Your task to perform on an android device: uninstall "Paramount+ | Peak Streaming" Image 0: 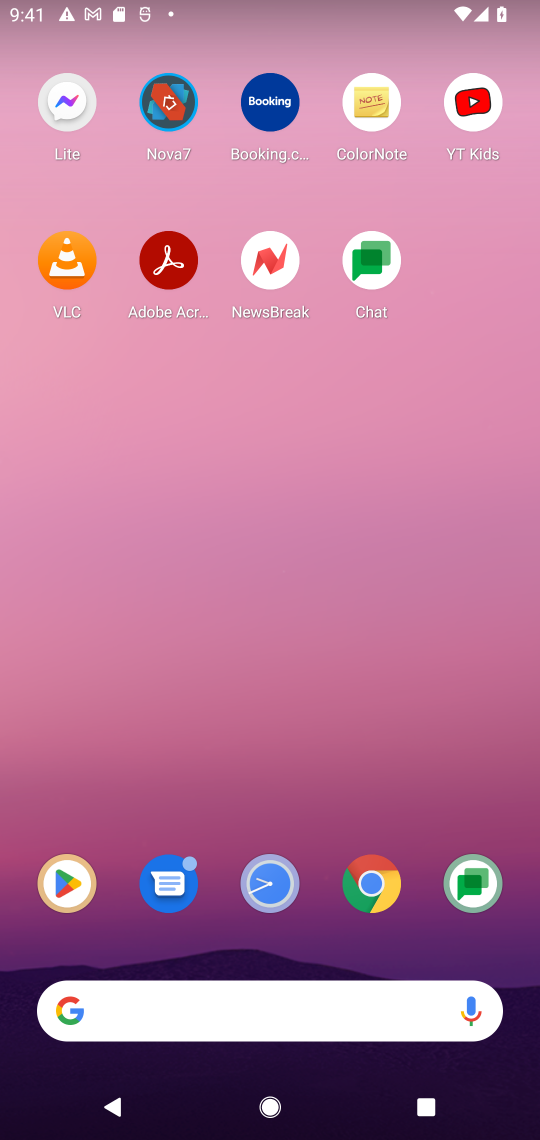
Step 0: click (58, 886)
Your task to perform on an android device: uninstall "Paramount+ | Peak Streaming" Image 1: 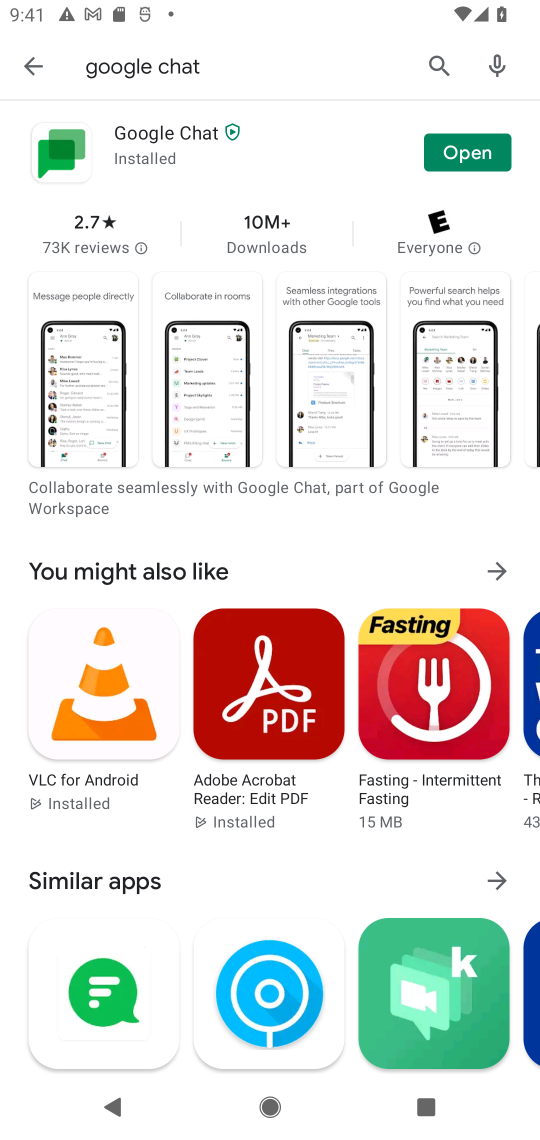
Step 1: click (186, 68)
Your task to perform on an android device: uninstall "Paramount+ | Peak Streaming" Image 2: 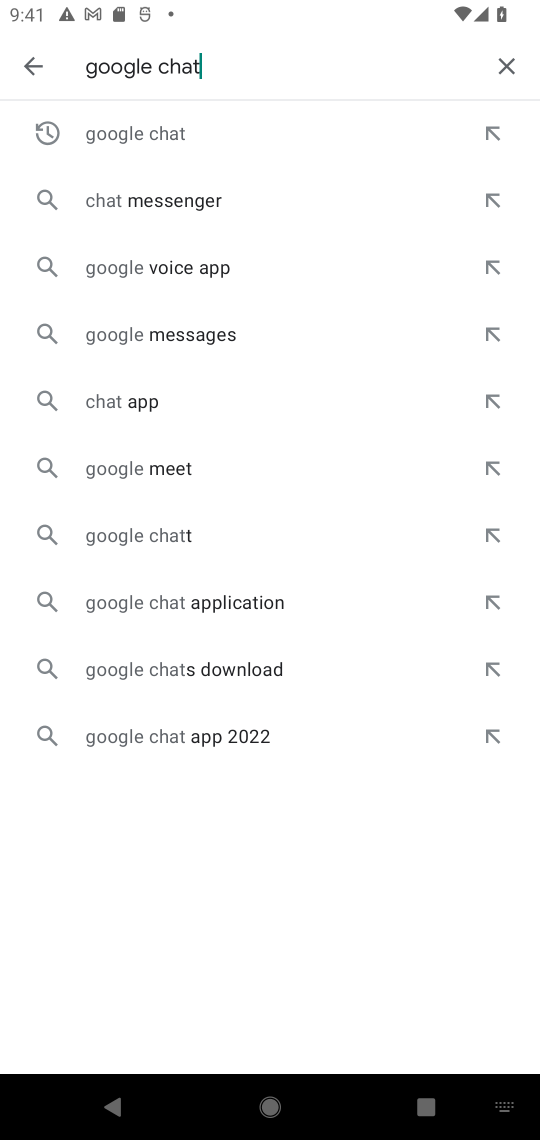
Step 2: click (511, 54)
Your task to perform on an android device: uninstall "Paramount+ | Peak Streaming" Image 3: 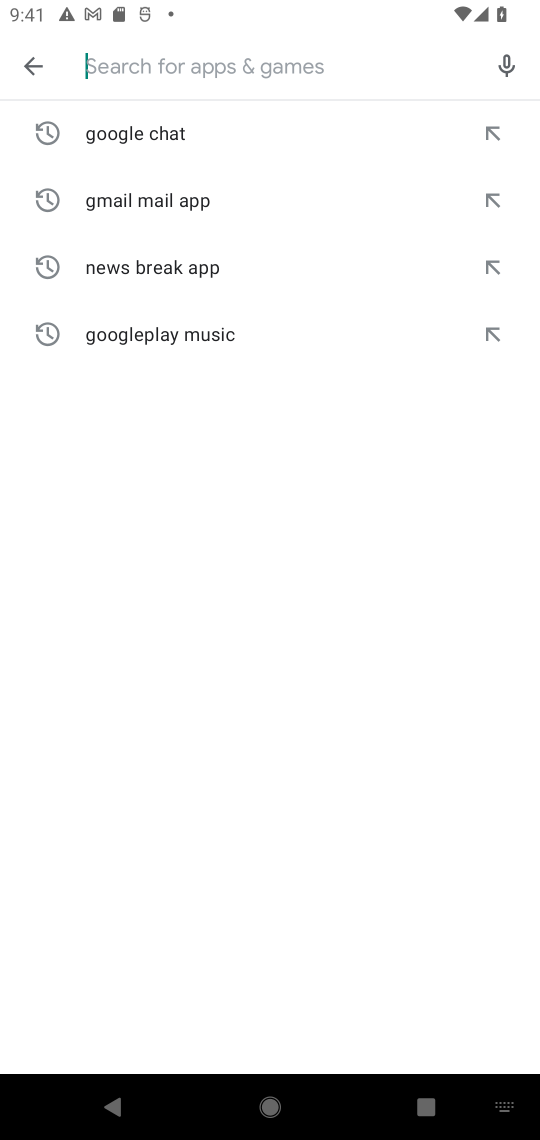
Step 3: type "Paramount+"
Your task to perform on an android device: uninstall "Paramount+ | Peak Streaming" Image 4: 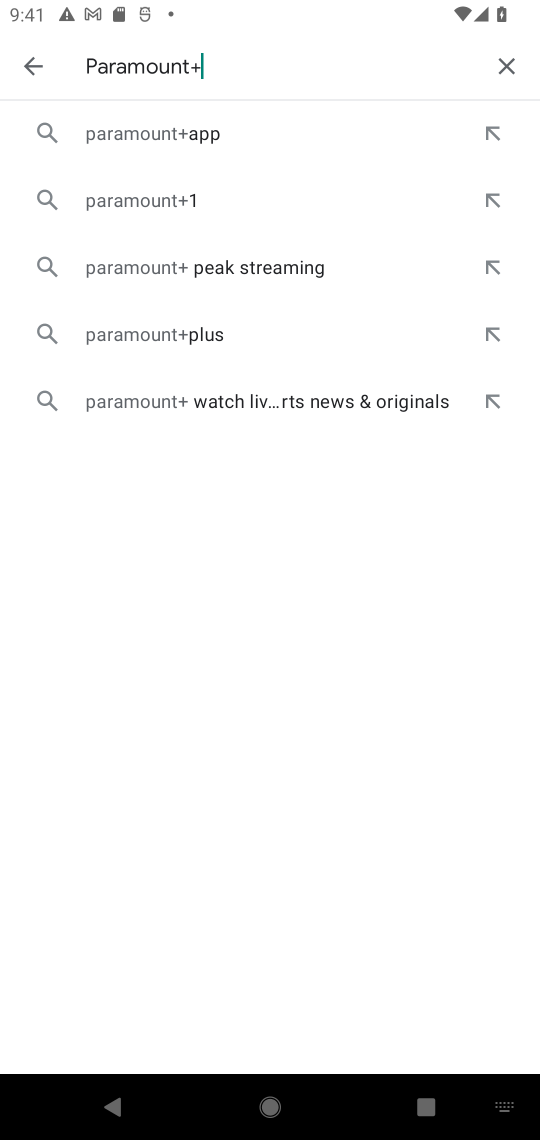
Step 4: click (182, 141)
Your task to perform on an android device: uninstall "Paramount+ | Peak Streaming" Image 5: 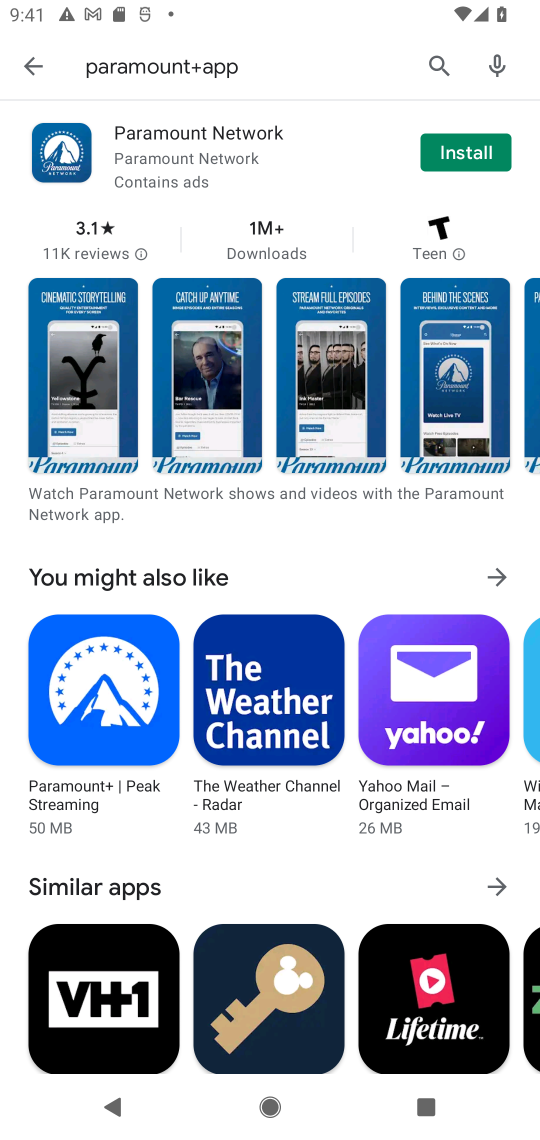
Step 5: task complete